Your task to perform on an android device: turn on sleep mode Image 0: 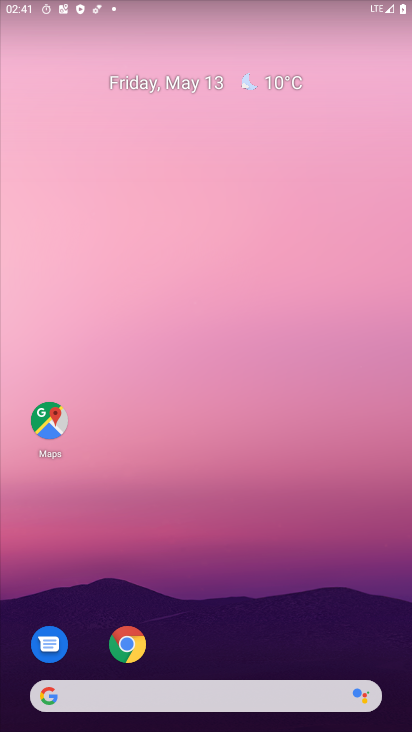
Step 0: drag from (306, 53) to (340, 590)
Your task to perform on an android device: turn on sleep mode Image 1: 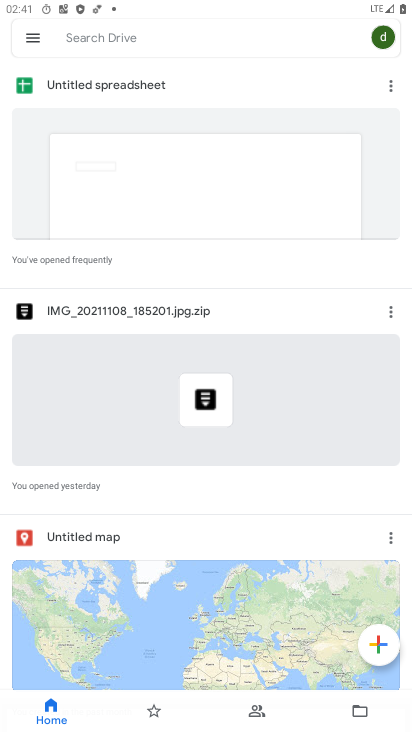
Step 1: press home button
Your task to perform on an android device: turn on sleep mode Image 2: 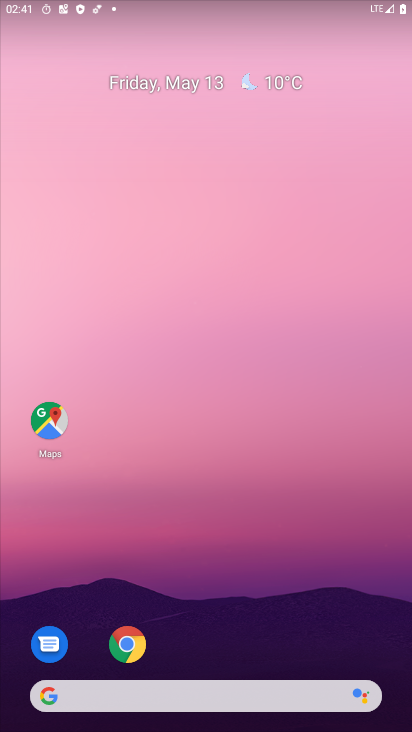
Step 2: drag from (221, 672) to (275, 0)
Your task to perform on an android device: turn on sleep mode Image 3: 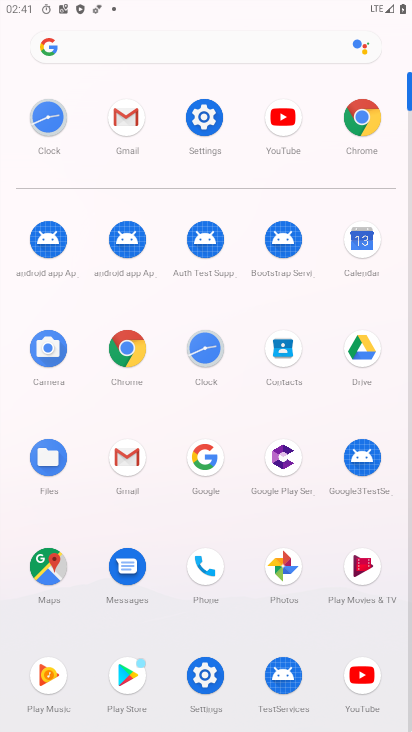
Step 3: click (193, 129)
Your task to perform on an android device: turn on sleep mode Image 4: 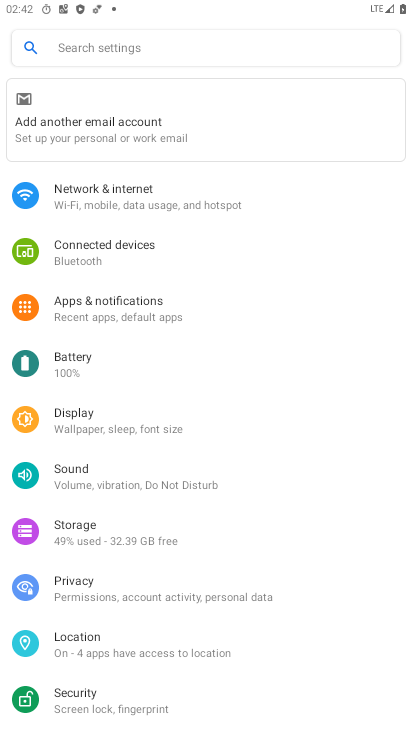
Step 4: task complete